Your task to perform on an android device: Open battery settings Image 0: 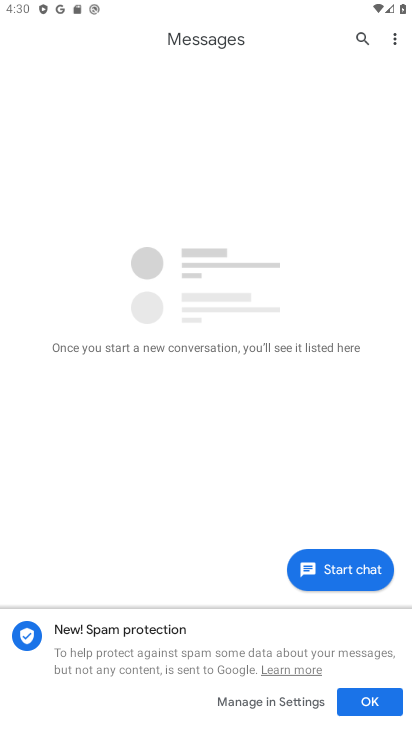
Step 0: press home button
Your task to perform on an android device: Open battery settings Image 1: 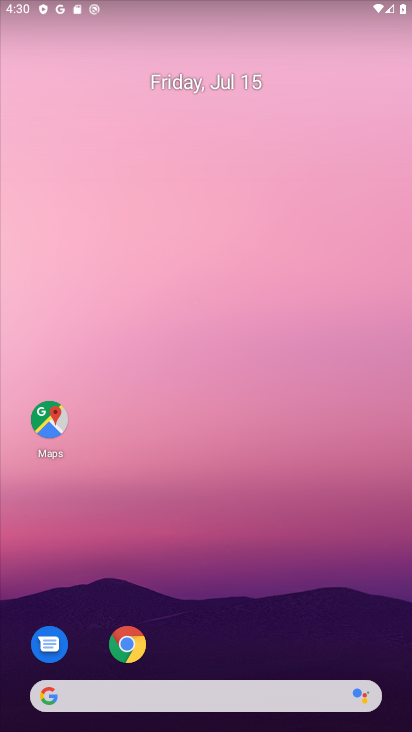
Step 1: drag from (213, 635) to (199, 296)
Your task to perform on an android device: Open battery settings Image 2: 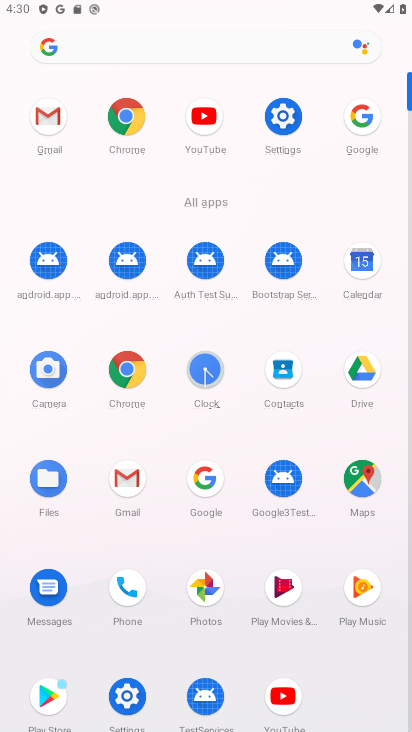
Step 2: click (287, 126)
Your task to perform on an android device: Open battery settings Image 3: 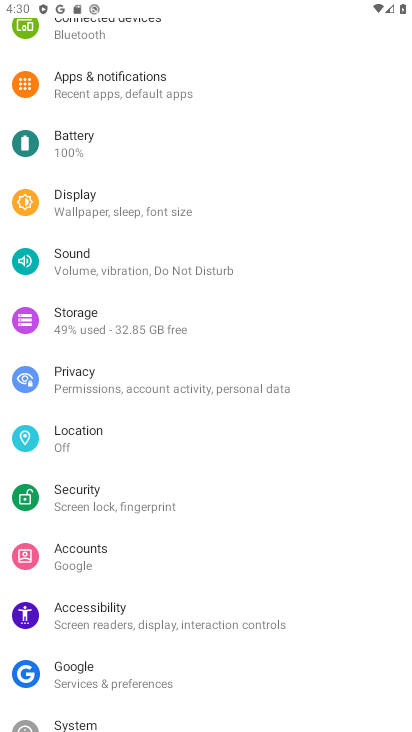
Step 3: click (113, 153)
Your task to perform on an android device: Open battery settings Image 4: 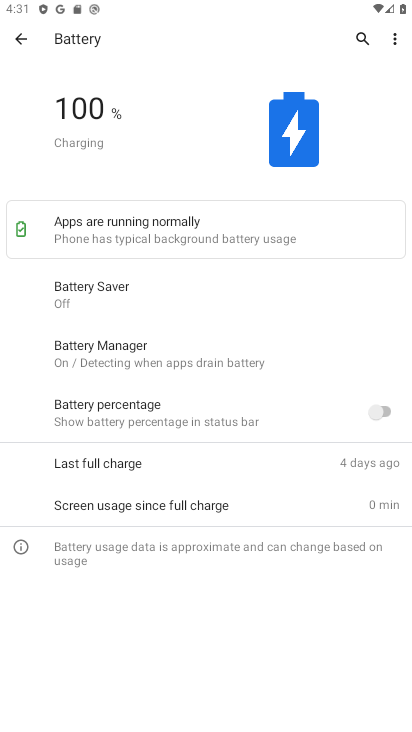
Step 4: click (396, 38)
Your task to perform on an android device: Open battery settings Image 5: 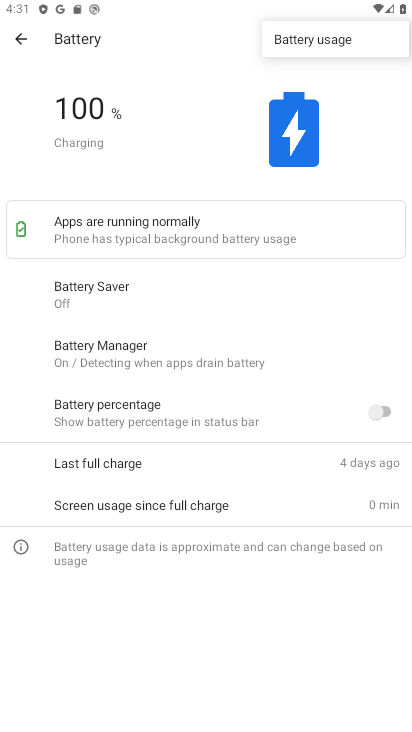
Step 5: task complete